Your task to perform on an android device: turn vacation reply on in the gmail app Image 0: 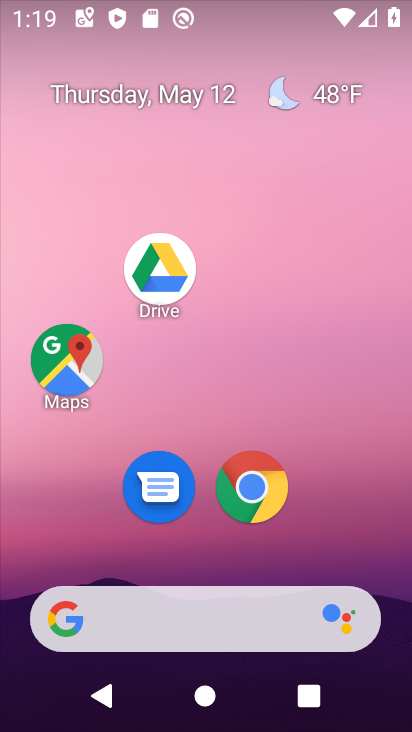
Step 0: drag from (212, 577) to (181, 41)
Your task to perform on an android device: turn vacation reply on in the gmail app Image 1: 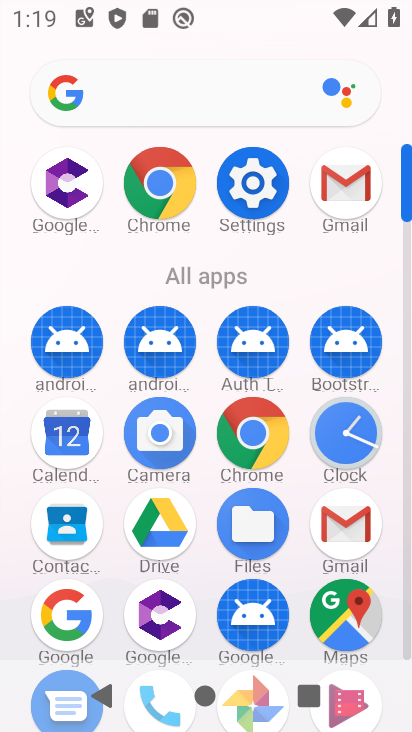
Step 1: click (332, 515)
Your task to perform on an android device: turn vacation reply on in the gmail app Image 2: 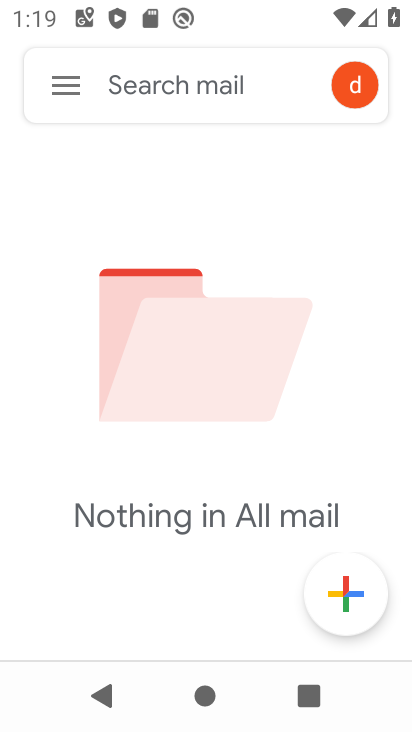
Step 2: click (60, 76)
Your task to perform on an android device: turn vacation reply on in the gmail app Image 3: 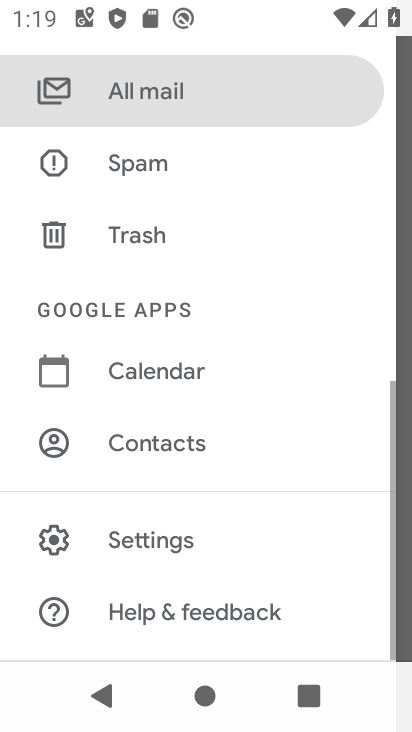
Step 3: click (123, 542)
Your task to perform on an android device: turn vacation reply on in the gmail app Image 4: 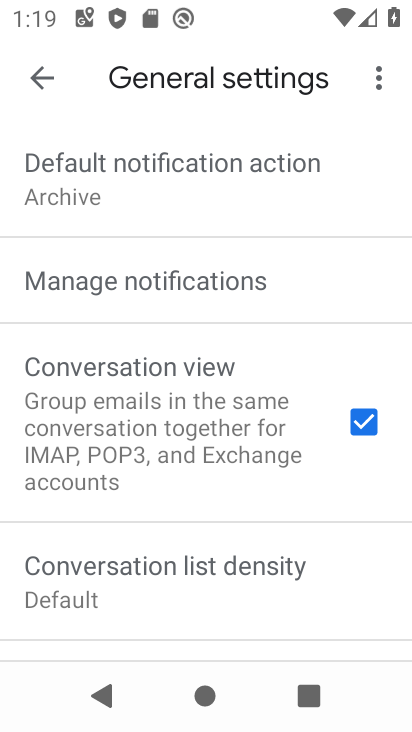
Step 4: click (42, 78)
Your task to perform on an android device: turn vacation reply on in the gmail app Image 5: 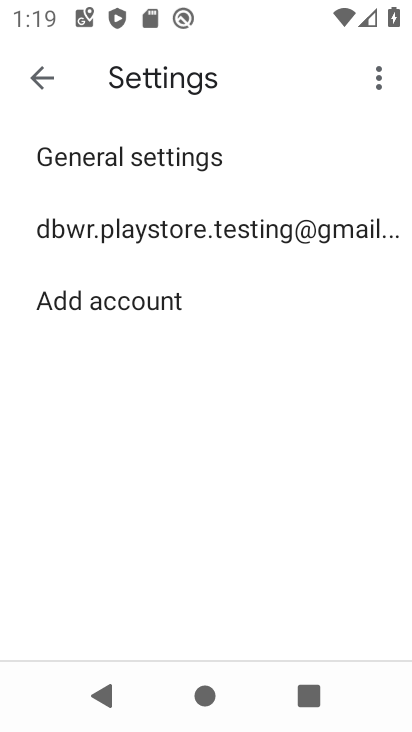
Step 5: click (110, 235)
Your task to perform on an android device: turn vacation reply on in the gmail app Image 6: 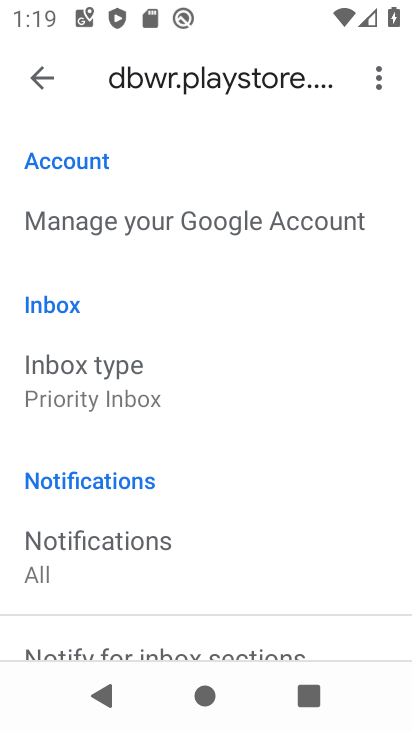
Step 6: drag from (117, 564) to (37, 5)
Your task to perform on an android device: turn vacation reply on in the gmail app Image 7: 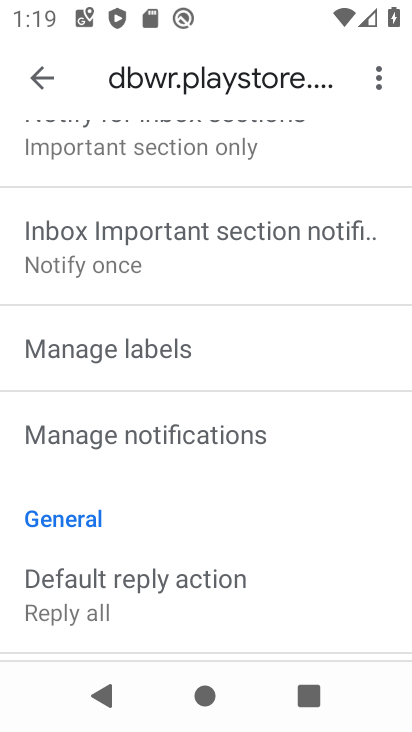
Step 7: drag from (144, 498) to (54, 50)
Your task to perform on an android device: turn vacation reply on in the gmail app Image 8: 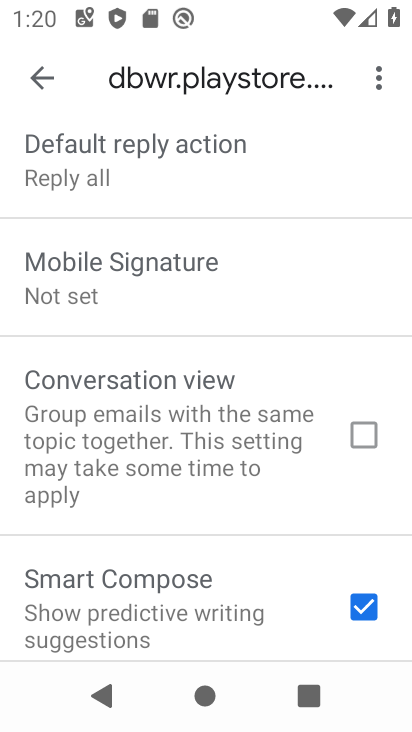
Step 8: drag from (215, 545) to (188, 150)
Your task to perform on an android device: turn vacation reply on in the gmail app Image 9: 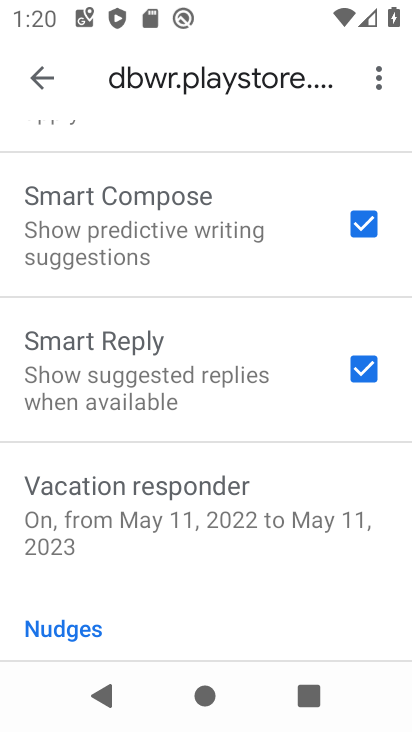
Step 9: click (269, 515)
Your task to perform on an android device: turn vacation reply on in the gmail app Image 10: 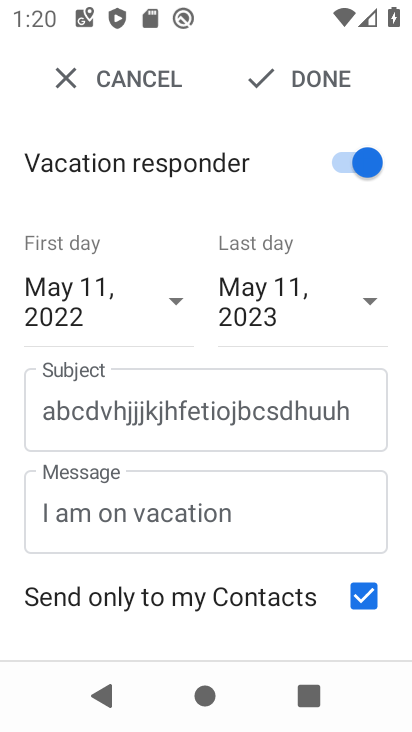
Step 10: click (326, 62)
Your task to perform on an android device: turn vacation reply on in the gmail app Image 11: 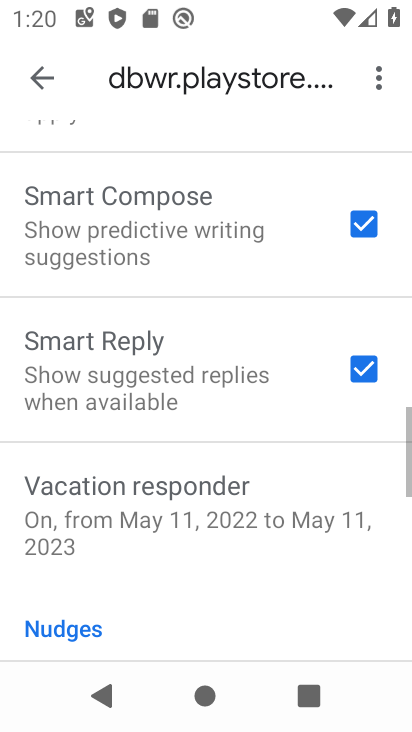
Step 11: task complete